Your task to perform on an android device: turn pop-ups off in chrome Image 0: 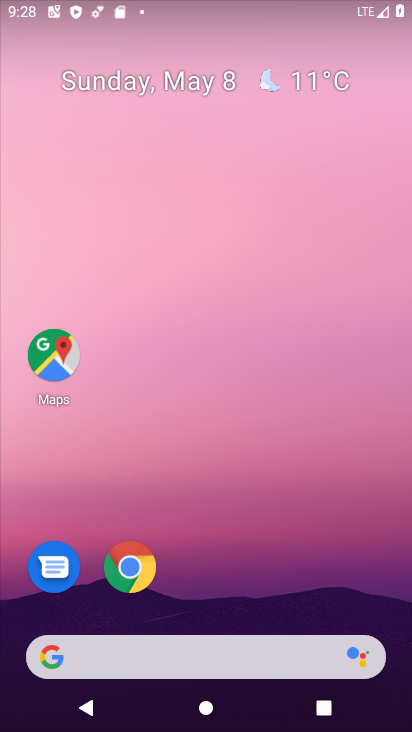
Step 0: click (114, 563)
Your task to perform on an android device: turn pop-ups off in chrome Image 1: 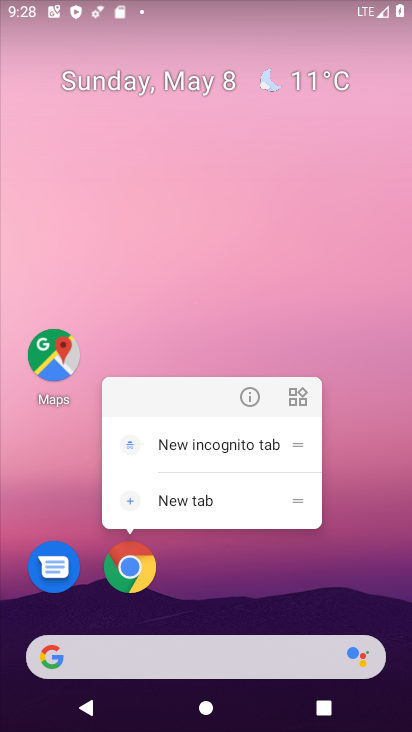
Step 1: click (131, 564)
Your task to perform on an android device: turn pop-ups off in chrome Image 2: 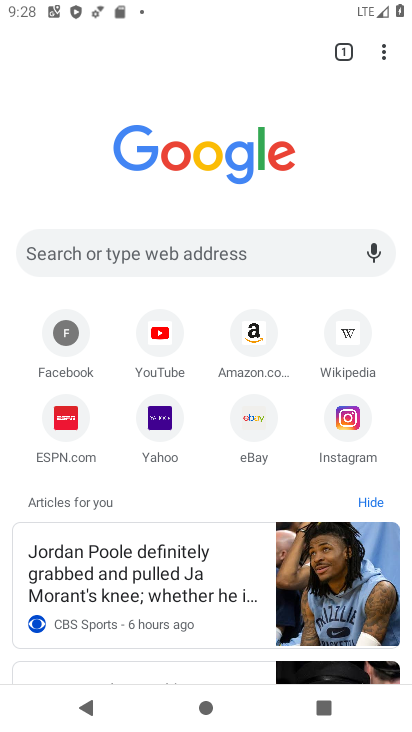
Step 2: drag from (383, 43) to (208, 507)
Your task to perform on an android device: turn pop-ups off in chrome Image 3: 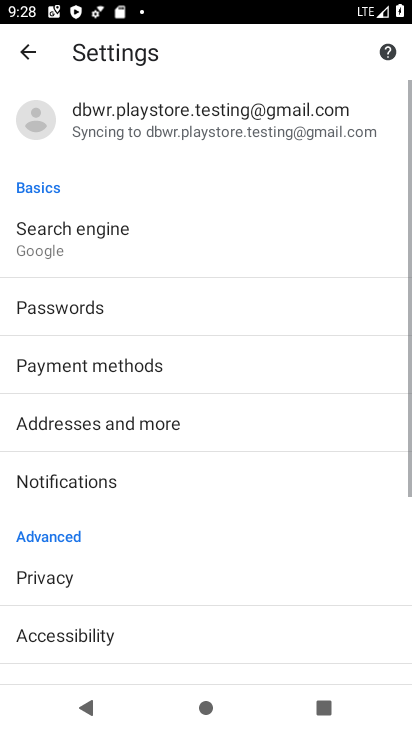
Step 3: drag from (169, 619) to (236, 104)
Your task to perform on an android device: turn pop-ups off in chrome Image 4: 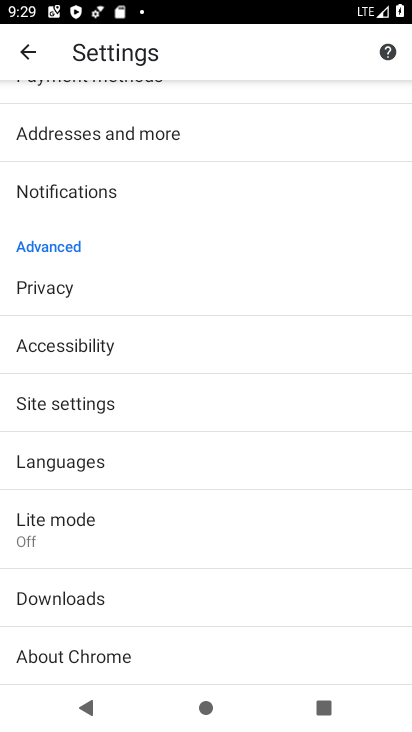
Step 4: click (91, 413)
Your task to perform on an android device: turn pop-ups off in chrome Image 5: 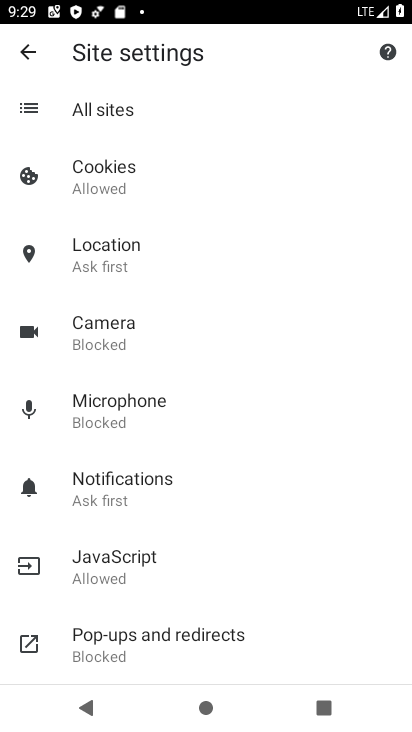
Step 5: click (116, 651)
Your task to perform on an android device: turn pop-ups off in chrome Image 6: 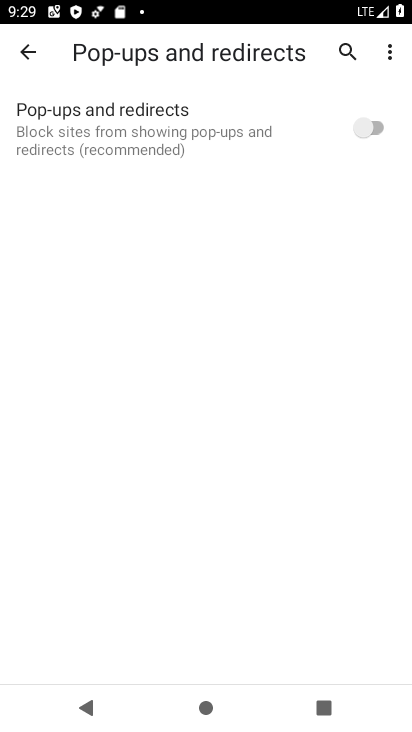
Step 6: task complete